Your task to perform on an android device: clear history in the chrome app Image 0: 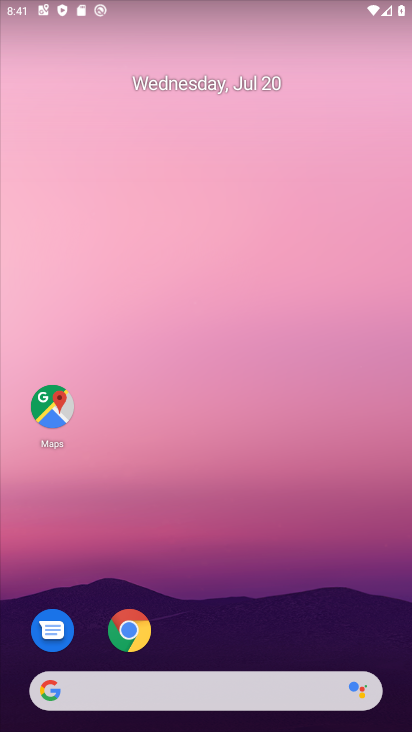
Step 0: click (122, 630)
Your task to perform on an android device: clear history in the chrome app Image 1: 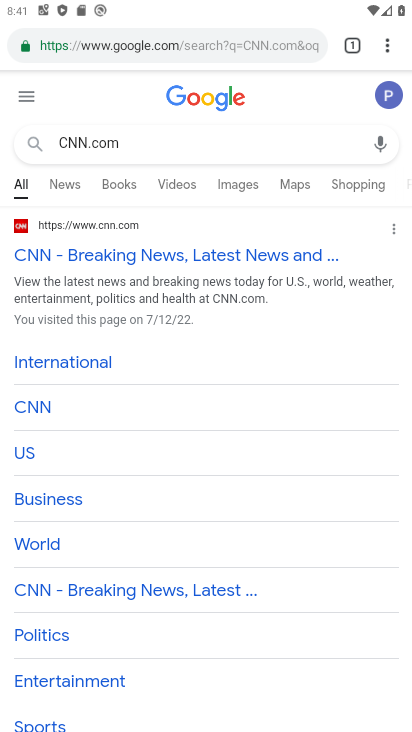
Step 1: click (388, 38)
Your task to perform on an android device: clear history in the chrome app Image 2: 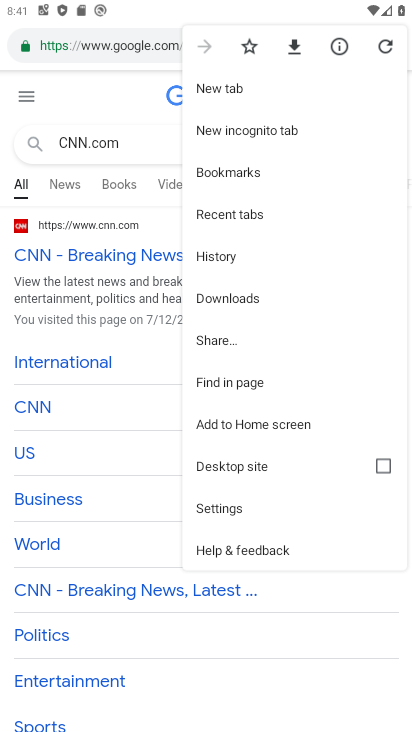
Step 2: click (209, 257)
Your task to perform on an android device: clear history in the chrome app Image 3: 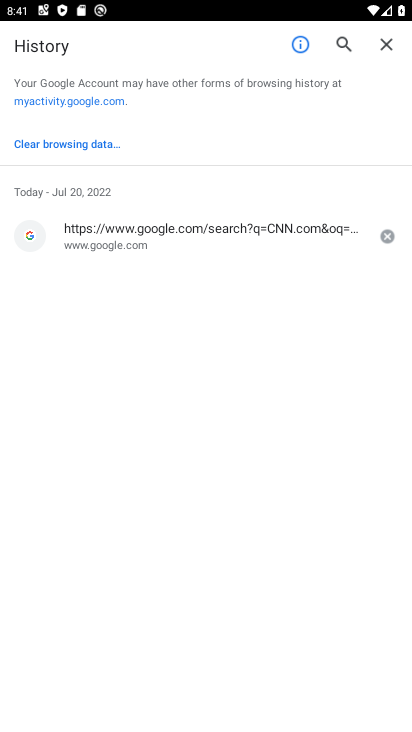
Step 3: click (33, 139)
Your task to perform on an android device: clear history in the chrome app Image 4: 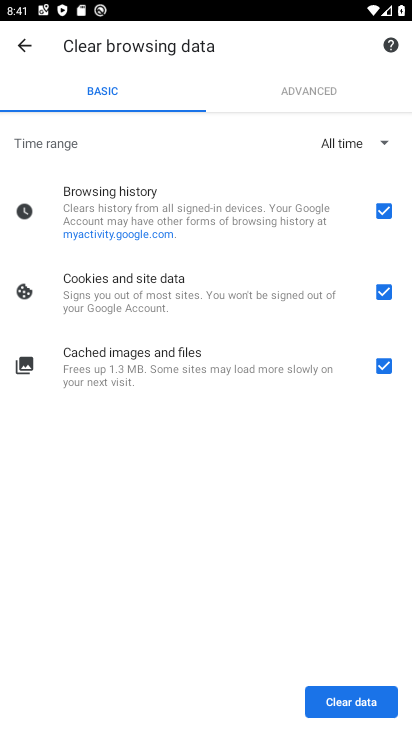
Step 4: click (337, 699)
Your task to perform on an android device: clear history in the chrome app Image 5: 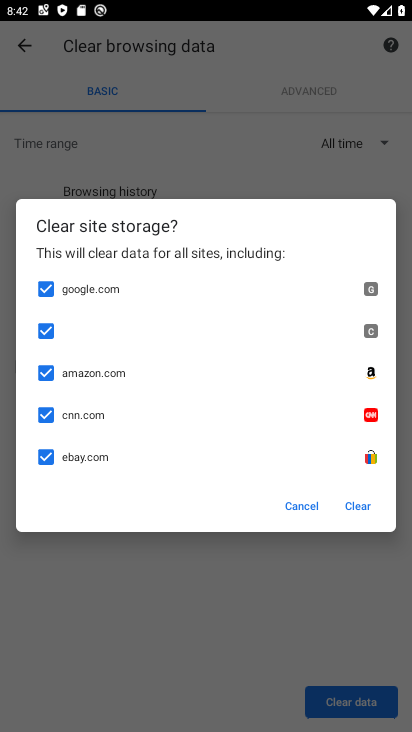
Step 5: click (370, 509)
Your task to perform on an android device: clear history in the chrome app Image 6: 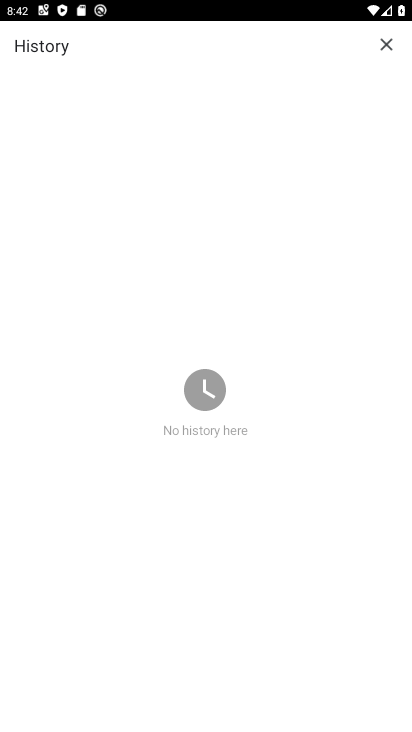
Step 6: task complete